Your task to perform on an android device: install app "Venmo" Image 0: 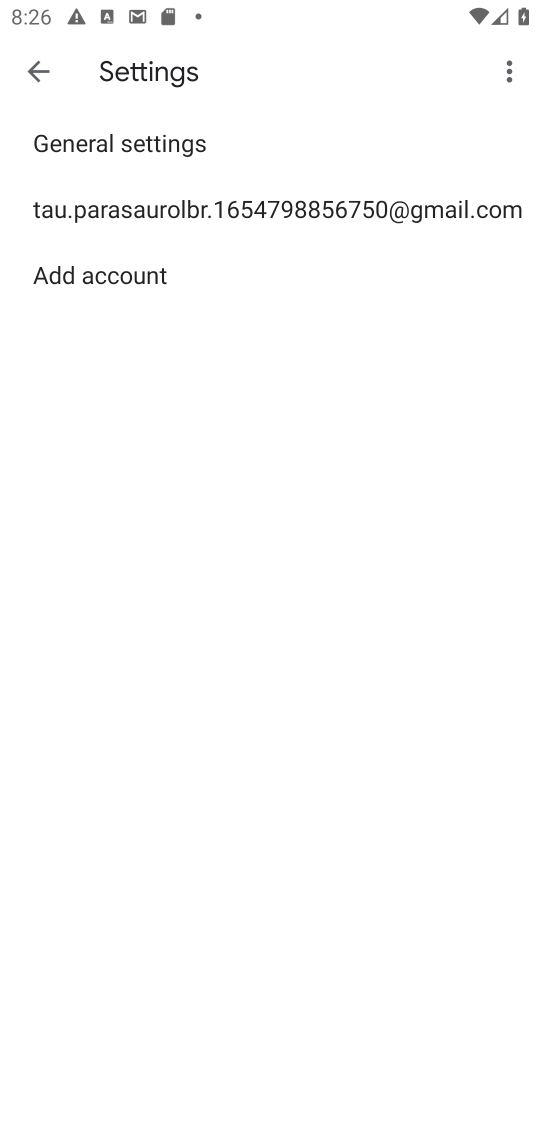
Step 0: press home button
Your task to perform on an android device: install app "Venmo" Image 1: 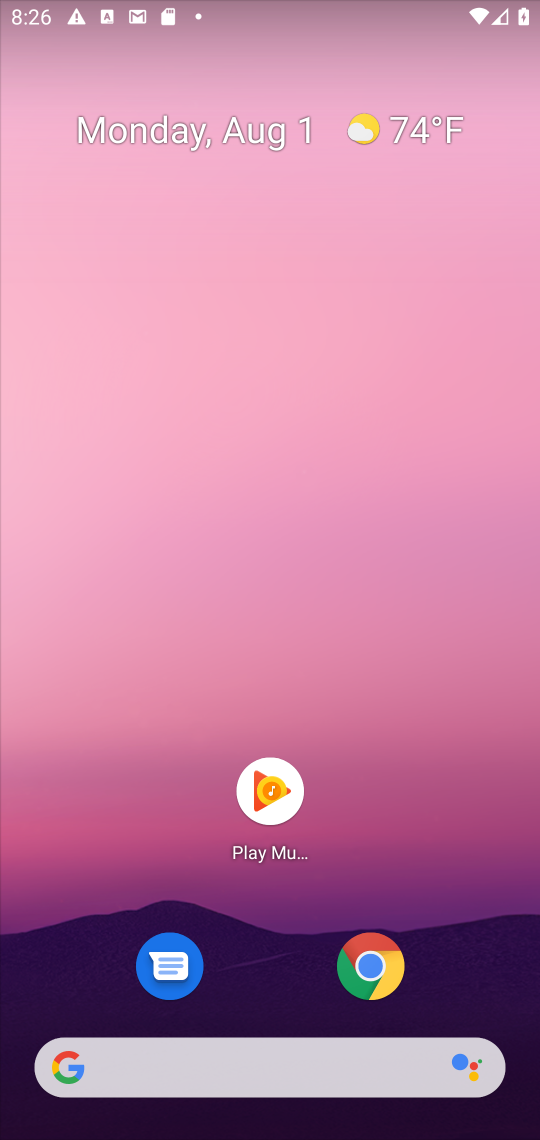
Step 1: drag from (279, 797) to (515, 816)
Your task to perform on an android device: install app "Venmo" Image 2: 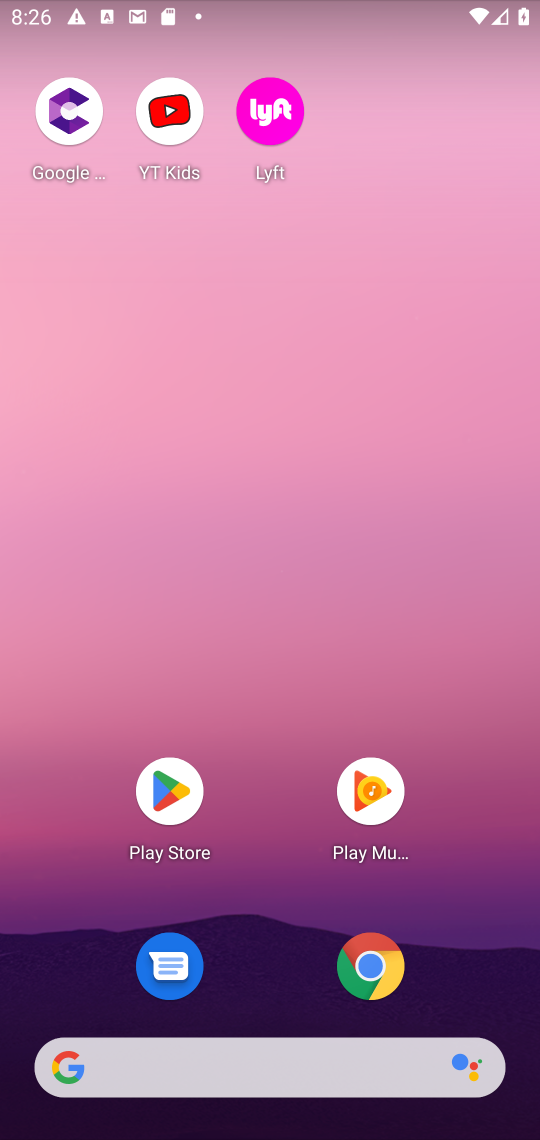
Step 2: click (157, 791)
Your task to perform on an android device: install app "Venmo" Image 3: 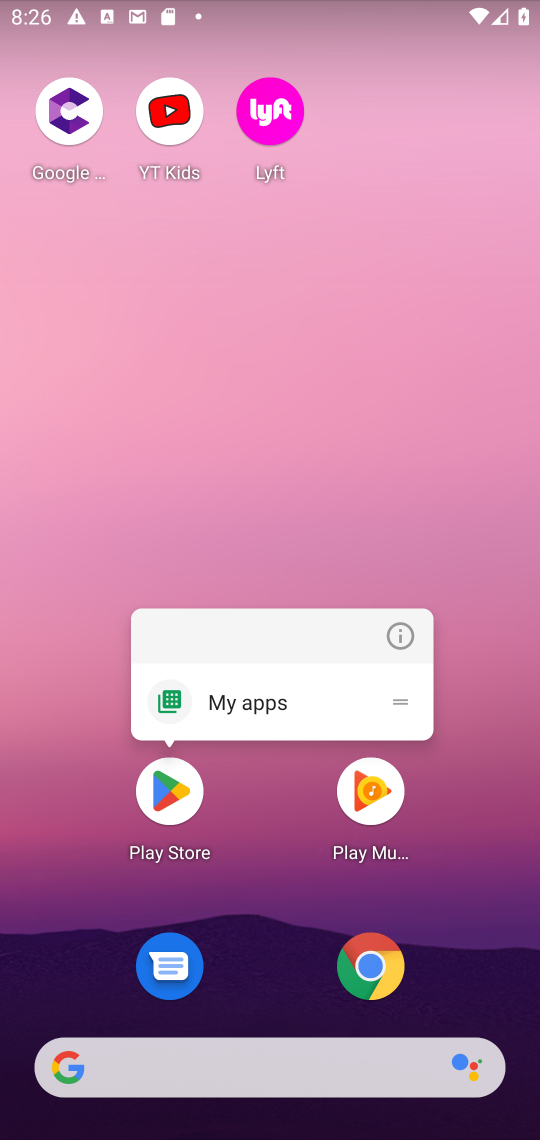
Step 3: click (168, 769)
Your task to perform on an android device: install app "Venmo" Image 4: 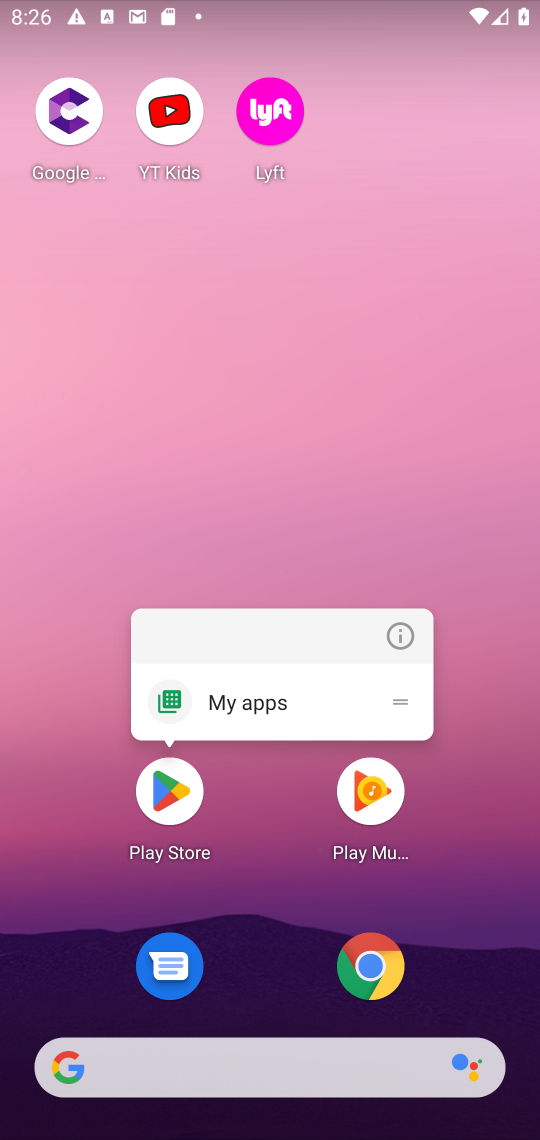
Step 4: click (168, 777)
Your task to perform on an android device: install app "Venmo" Image 5: 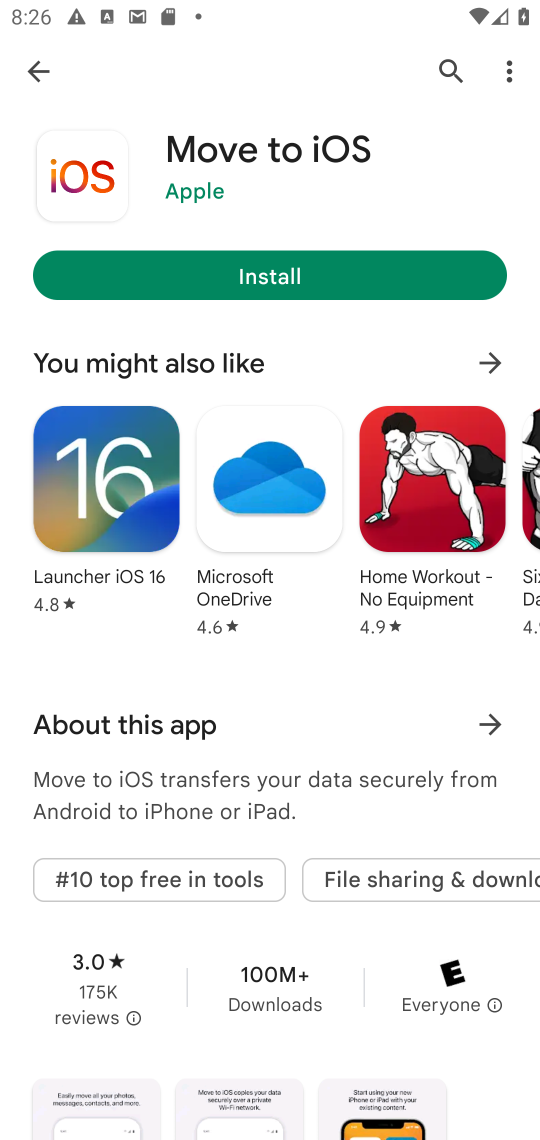
Step 5: click (456, 59)
Your task to perform on an android device: install app "Venmo" Image 6: 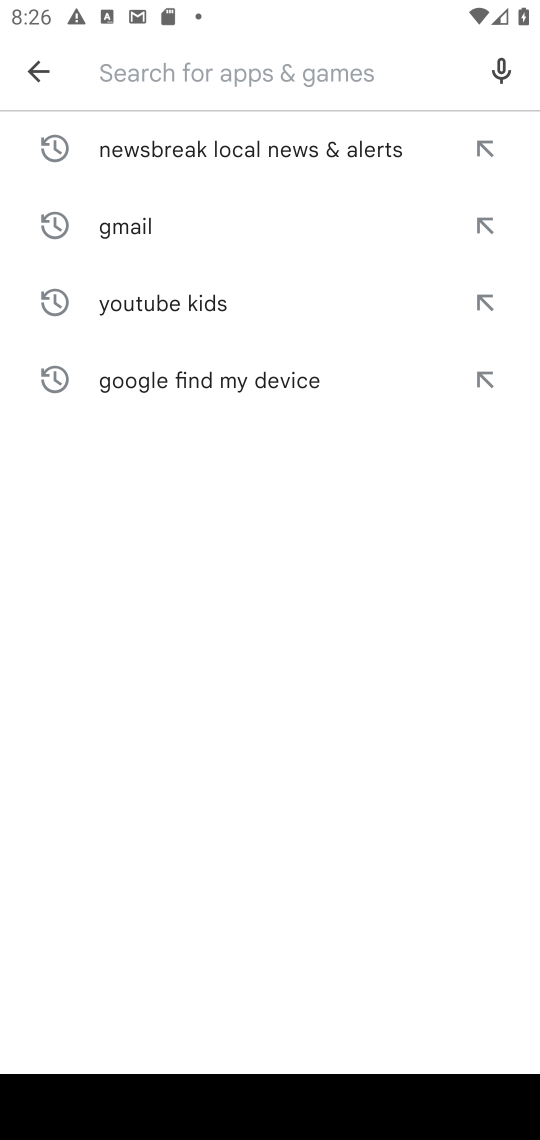
Step 6: type "Venmo"
Your task to perform on an android device: install app "Venmo" Image 7: 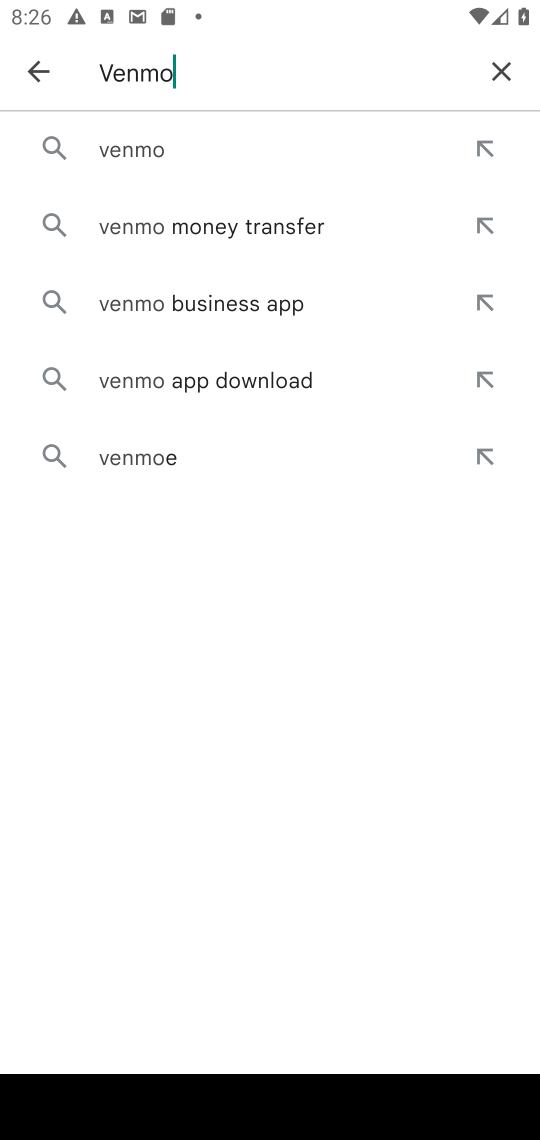
Step 7: click (140, 140)
Your task to perform on an android device: install app "Venmo" Image 8: 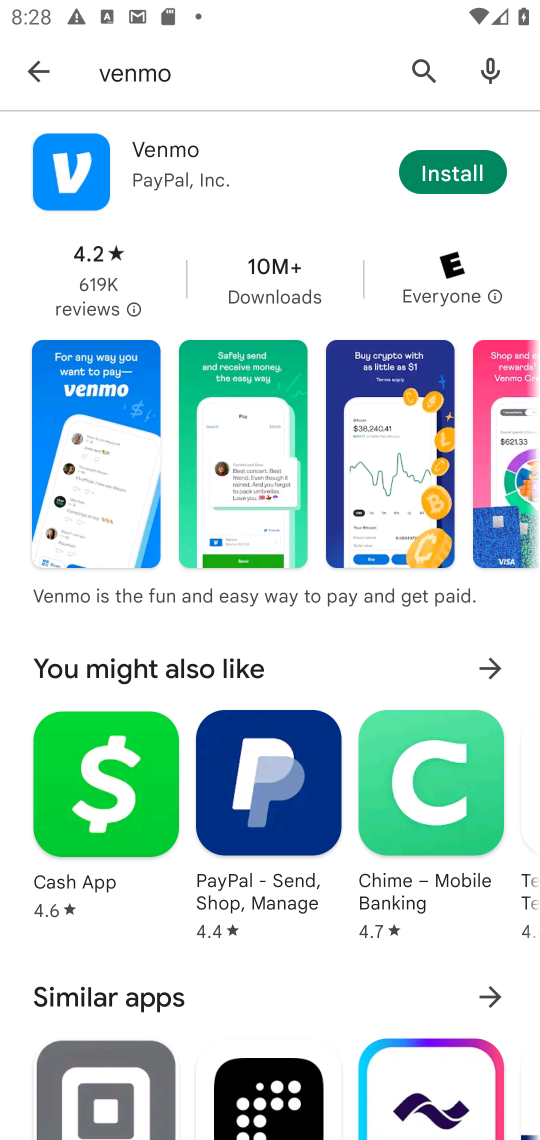
Step 8: click (440, 164)
Your task to perform on an android device: install app "Venmo" Image 9: 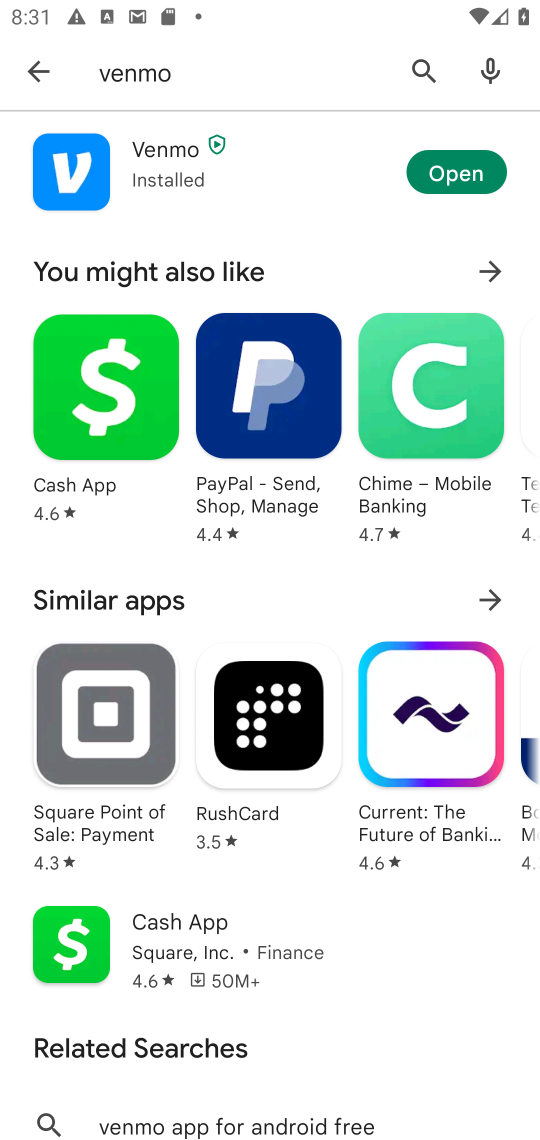
Step 9: click (467, 172)
Your task to perform on an android device: install app "Venmo" Image 10: 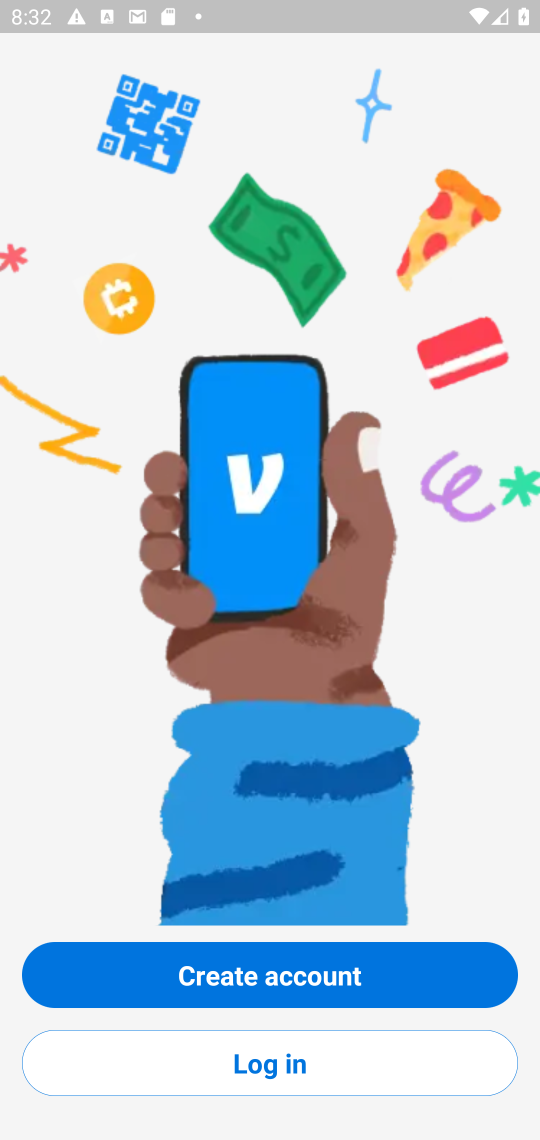
Step 10: task complete